Your task to perform on an android device: Open calendar and show me the fourth week of next month Image 0: 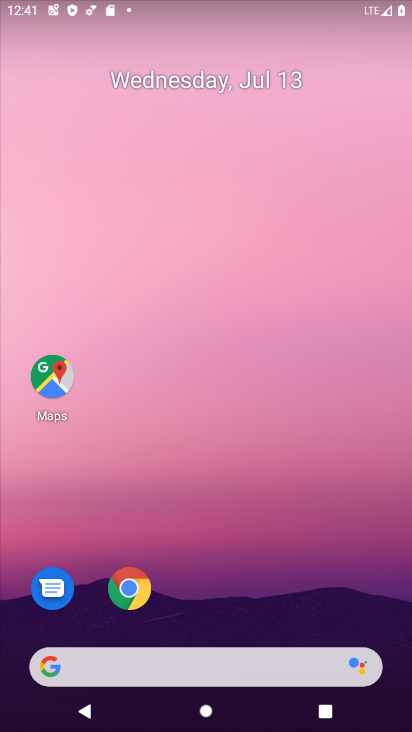
Step 0: drag from (384, 704) to (307, 142)
Your task to perform on an android device: Open calendar and show me the fourth week of next month Image 1: 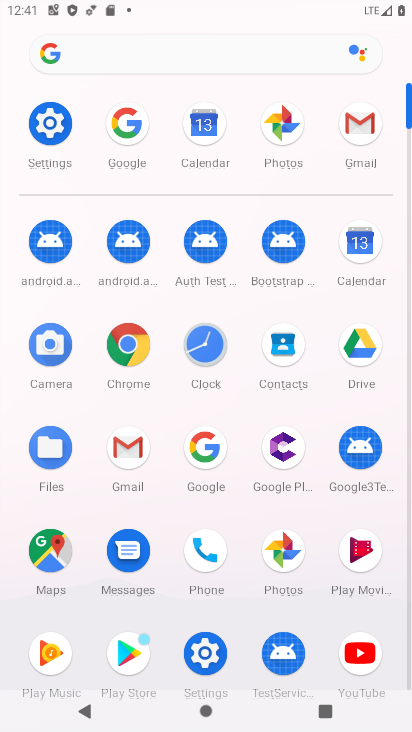
Step 1: click (355, 236)
Your task to perform on an android device: Open calendar and show me the fourth week of next month Image 2: 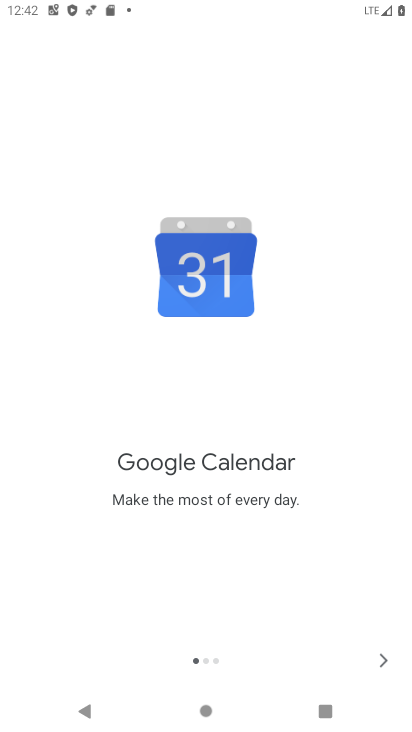
Step 2: click (377, 654)
Your task to perform on an android device: Open calendar and show me the fourth week of next month Image 3: 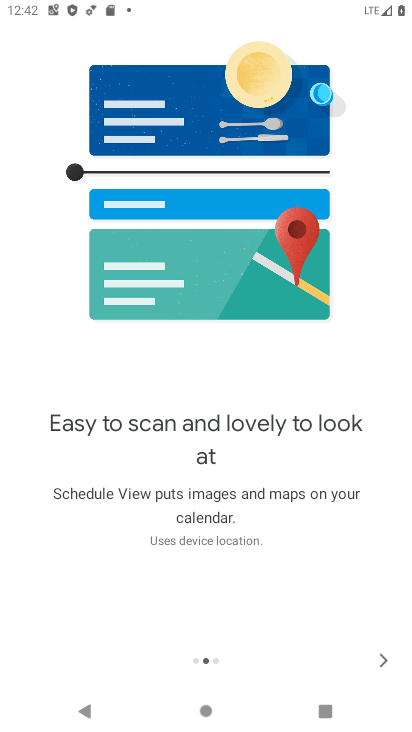
Step 3: click (377, 654)
Your task to perform on an android device: Open calendar and show me the fourth week of next month Image 4: 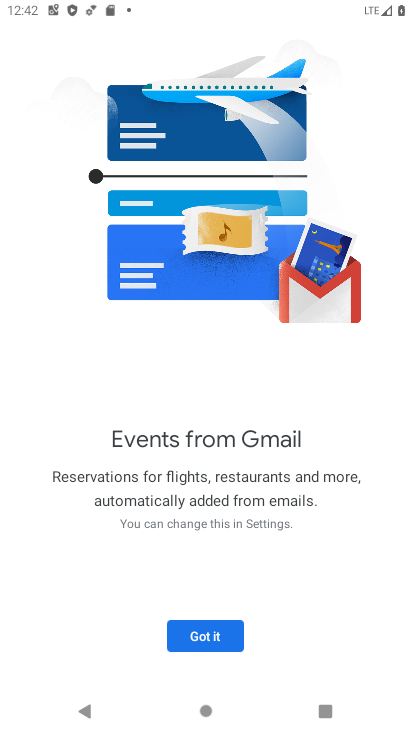
Step 4: click (227, 628)
Your task to perform on an android device: Open calendar and show me the fourth week of next month Image 5: 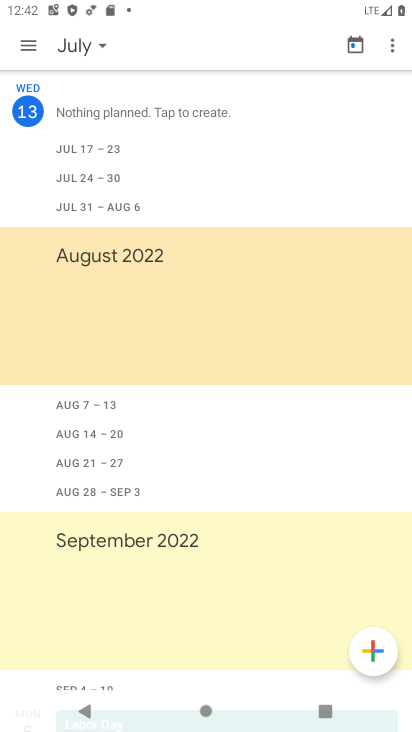
Step 5: press home button
Your task to perform on an android device: Open calendar and show me the fourth week of next month Image 6: 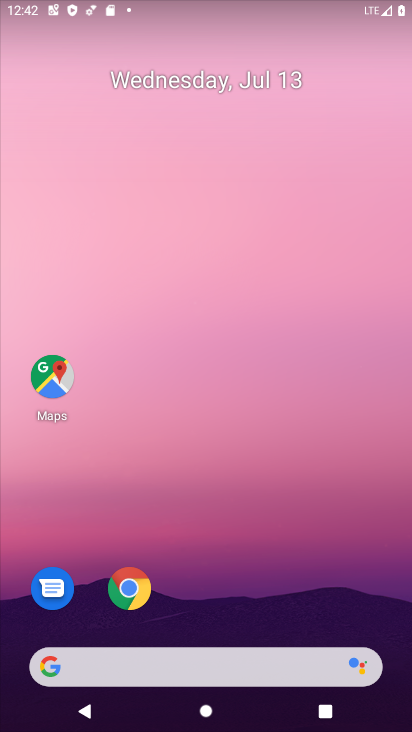
Step 6: drag from (397, 650) to (347, 200)
Your task to perform on an android device: Open calendar and show me the fourth week of next month Image 7: 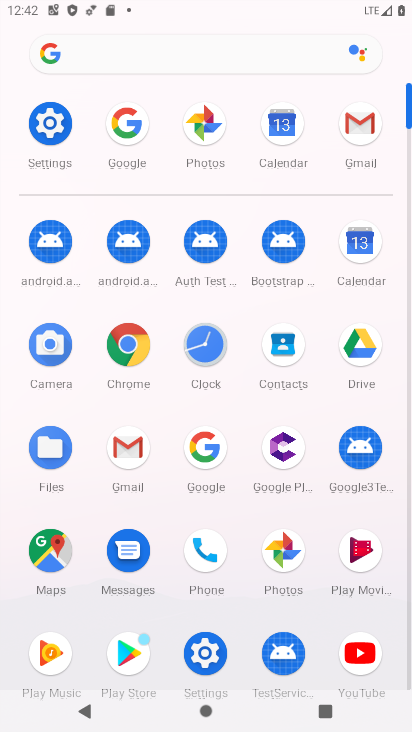
Step 7: click (362, 240)
Your task to perform on an android device: Open calendar and show me the fourth week of next month Image 8: 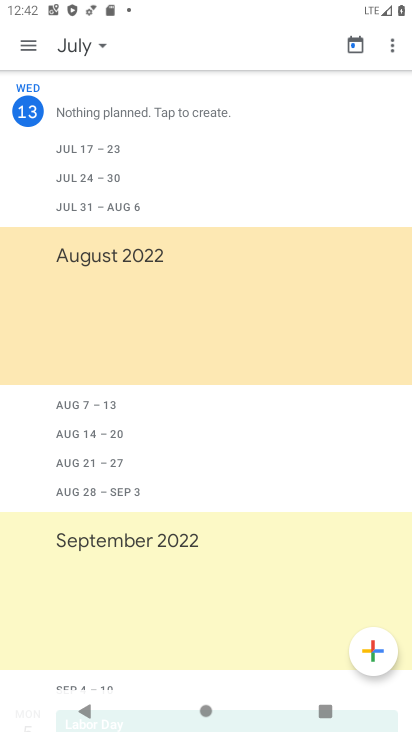
Step 8: click (100, 42)
Your task to perform on an android device: Open calendar and show me the fourth week of next month Image 9: 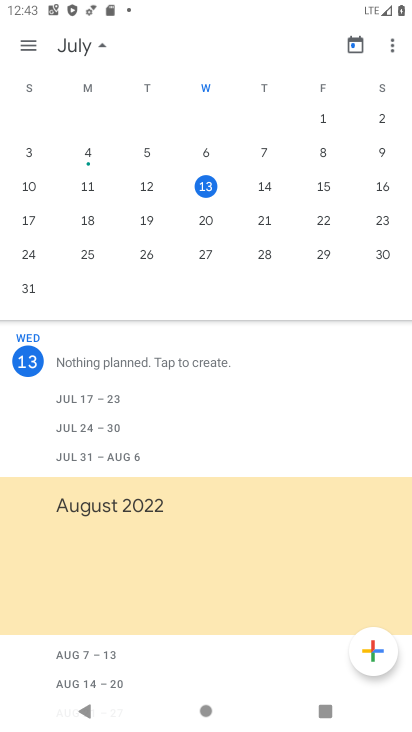
Step 9: drag from (390, 176) to (83, 143)
Your task to perform on an android device: Open calendar and show me the fourth week of next month Image 10: 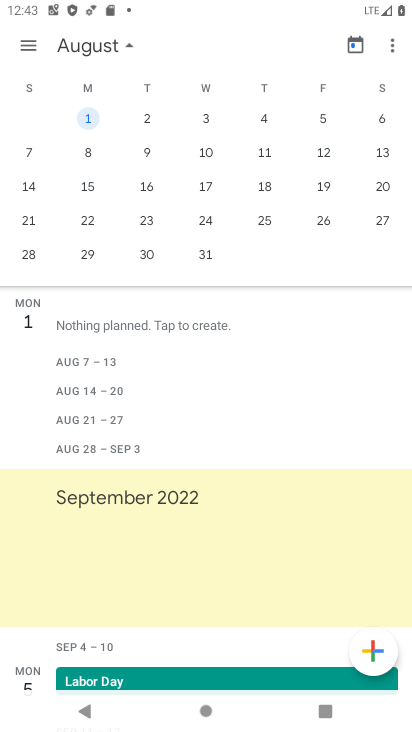
Step 10: click (206, 216)
Your task to perform on an android device: Open calendar and show me the fourth week of next month Image 11: 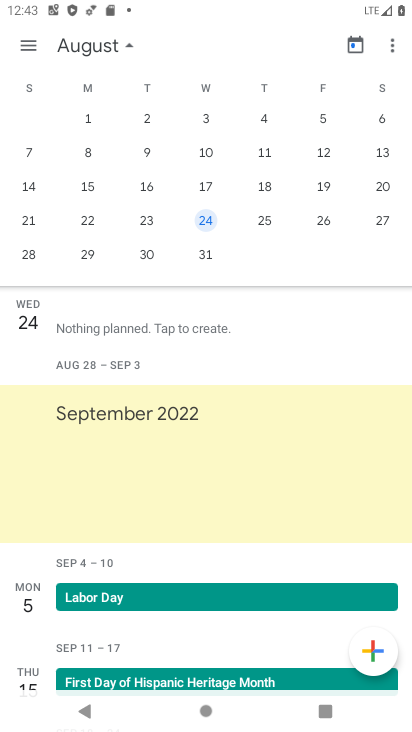
Step 11: task complete